Your task to perform on an android device: Open the Play Movies app and select the watchlist tab. Image 0: 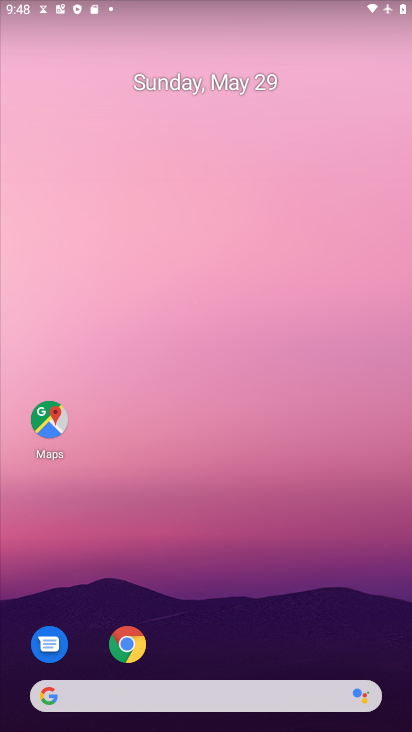
Step 0: drag from (283, 636) to (277, 219)
Your task to perform on an android device: Open the Play Movies app and select the watchlist tab. Image 1: 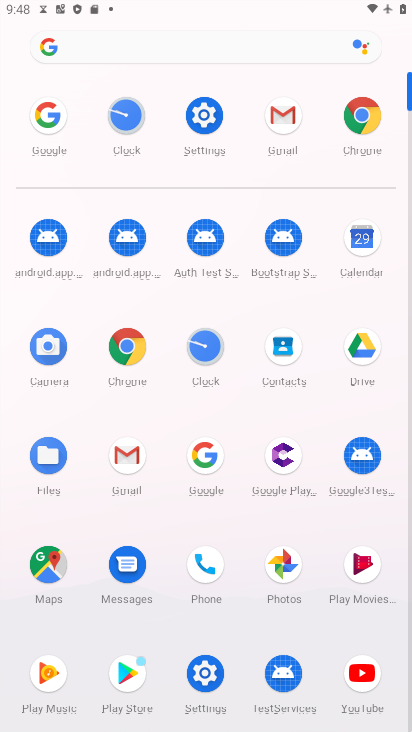
Step 1: click (357, 571)
Your task to perform on an android device: Open the Play Movies app and select the watchlist tab. Image 2: 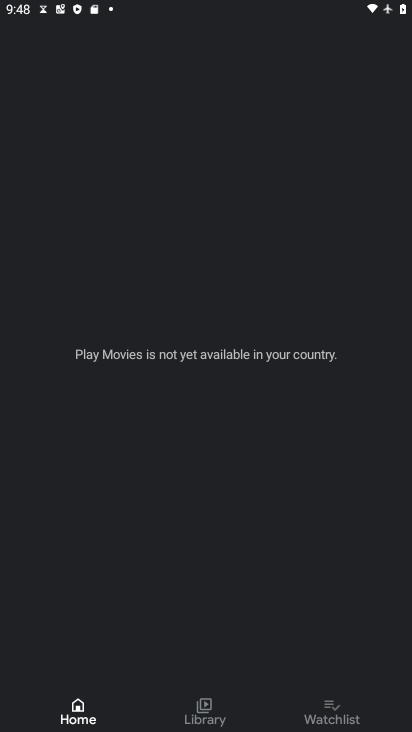
Step 2: click (337, 701)
Your task to perform on an android device: Open the Play Movies app and select the watchlist tab. Image 3: 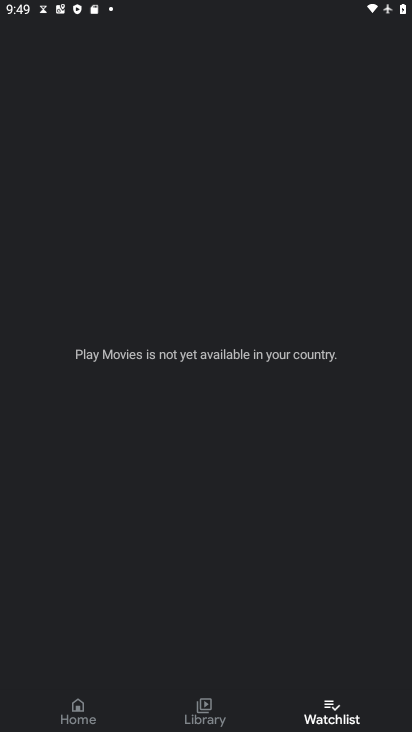
Step 3: task complete